Your task to perform on an android device: change the clock display to digital Image 0: 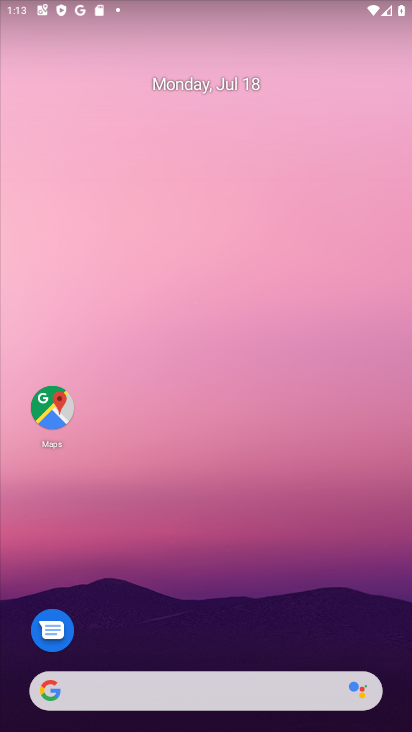
Step 0: drag from (205, 689) to (206, 114)
Your task to perform on an android device: change the clock display to digital Image 1: 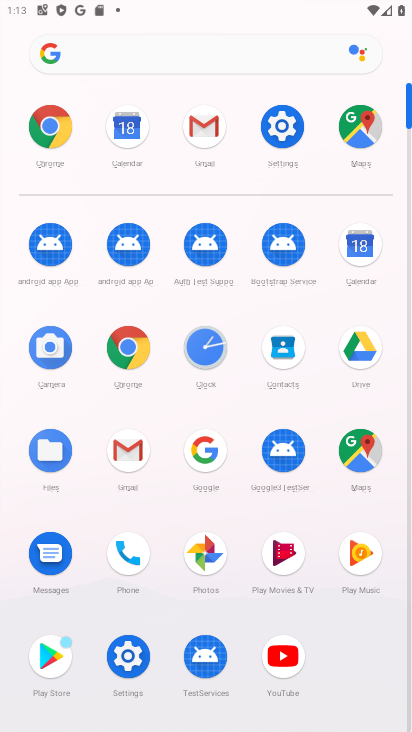
Step 1: click (192, 346)
Your task to perform on an android device: change the clock display to digital Image 2: 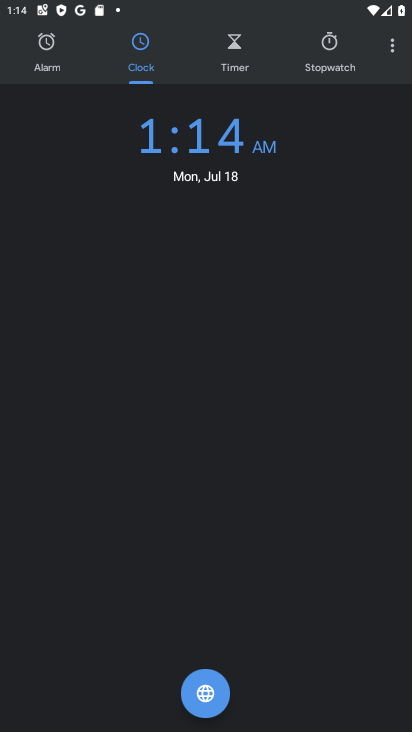
Step 2: click (380, 44)
Your task to perform on an android device: change the clock display to digital Image 3: 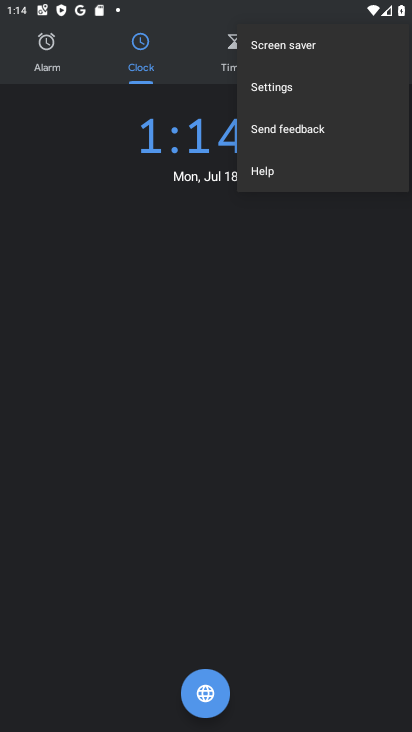
Step 3: click (309, 90)
Your task to perform on an android device: change the clock display to digital Image 4: 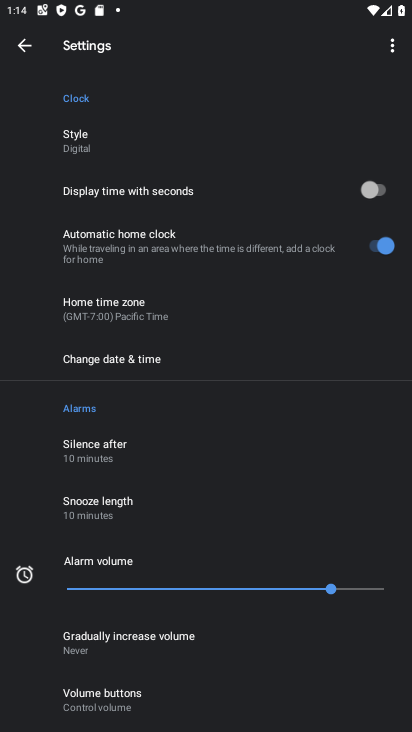
Step 4: click (106, 134)
Your task to perform on an android device: change the clock display to digital Image 5: 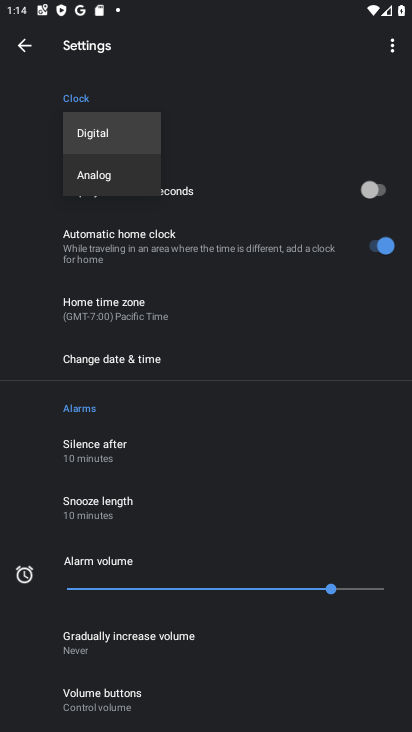
Step 5: click (109, 169)
Your task to perform on an android device: change the clock display to digital Image 6: 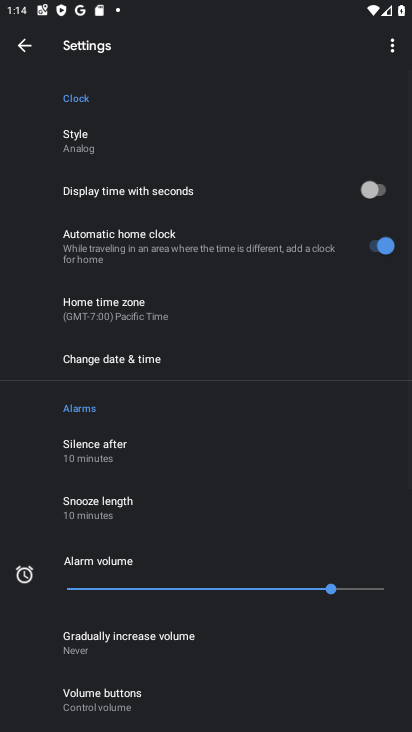
Step 6: task complete